Your task to perform on an android device: visit the assistant section in the google photos Image 0: 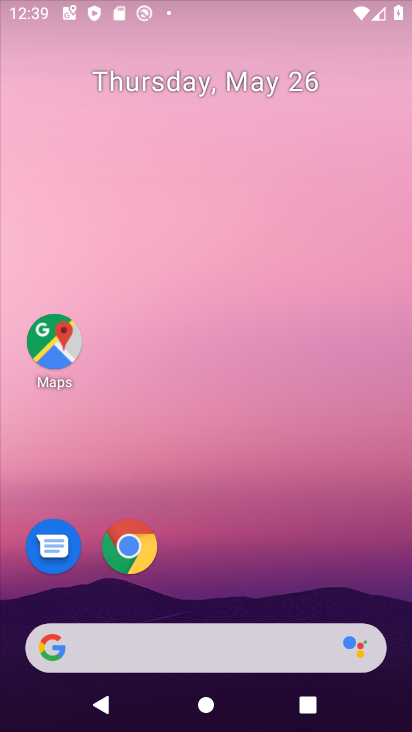
Step 0: press home button
Your task to perform on an android device: visit the assistant section in the google photos Image 1: 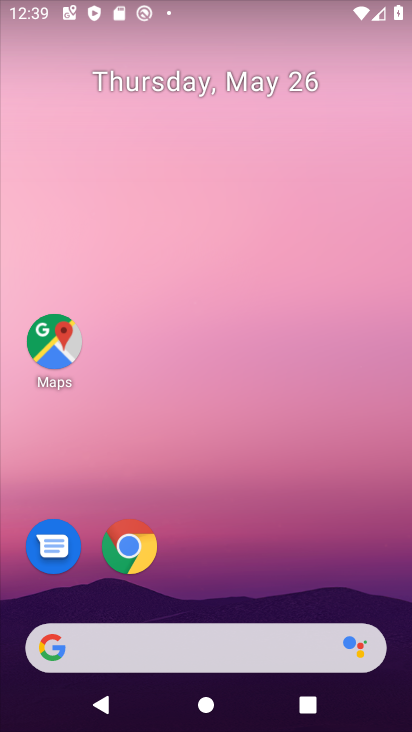
Step 1: drag from (293, 567) to (257, 82)
Your task to perform on an android device: visit the assistant section in the google photos Image 2: 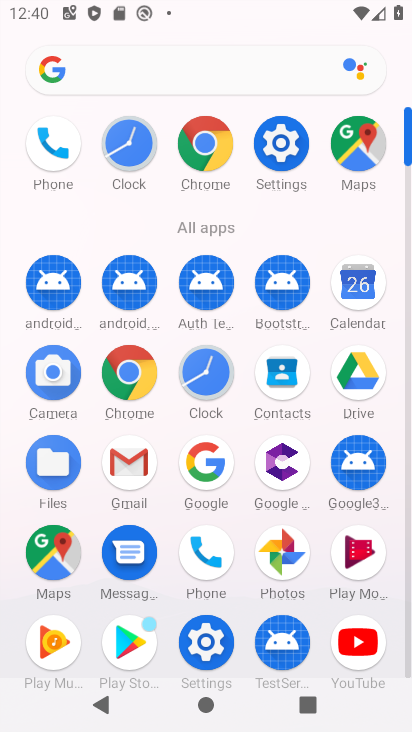
Step 2: click (277, 554)
Your task to perform on an android device: visit the assistant section in the google photos Image 3: 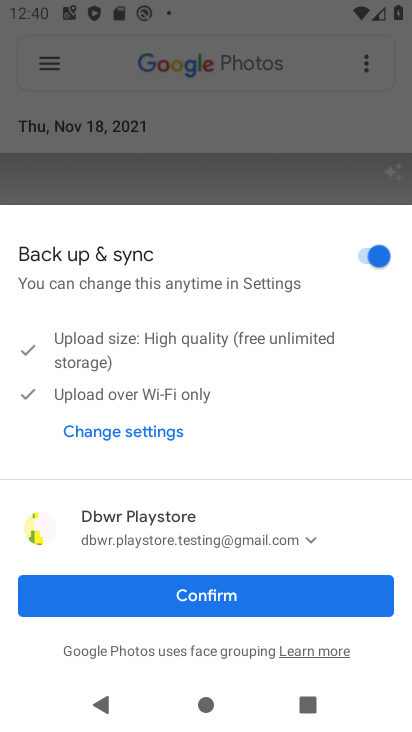
Step 3: click (217, 607)
Your task to perform on an android device: visit the assistant section in the google photos Image 4: 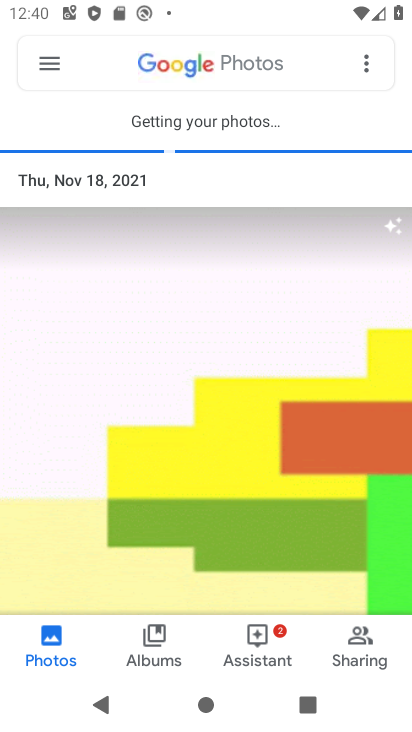
Step 4: click (254, 641)
Your task to perform on an android device: visit the assistant section in the google photos Image 5: 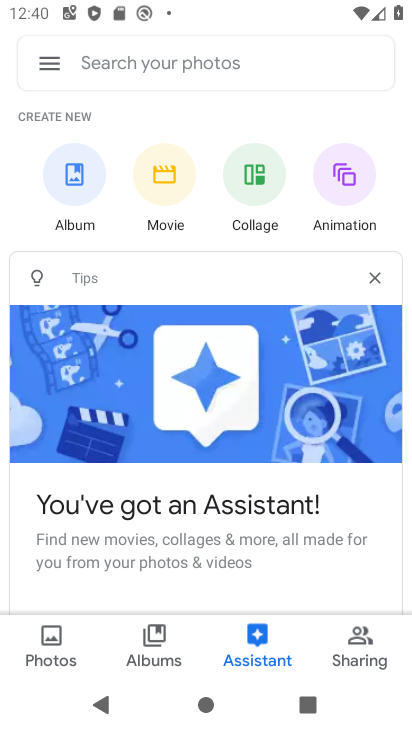
Step 5: task complete